Your task to perform on an android device: toggle javascript in the chrome app Image 0: 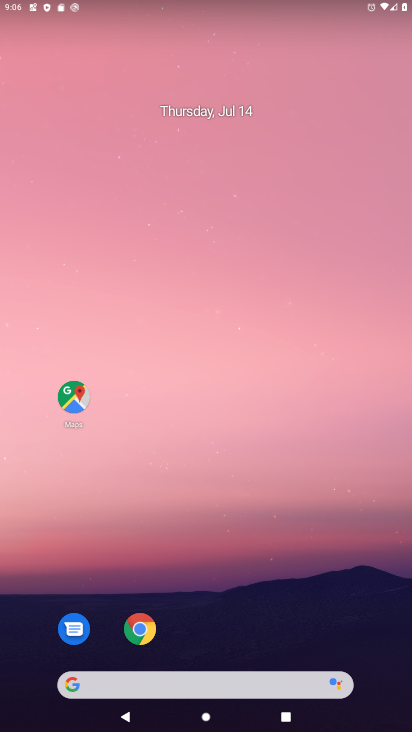
Step 0: click (144, 627)
Your task to perform on an android device: toggle javascript in the chrome app Image 1: 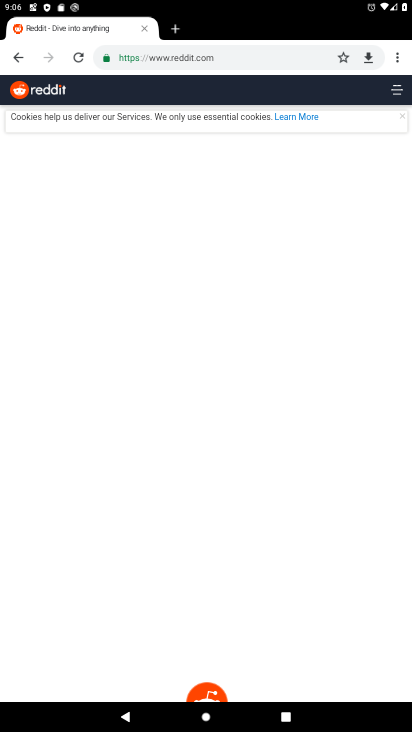
Step 1: click (401, 58)
Your task to perform on an android device: toggle javascript in the chrome app Image 2: 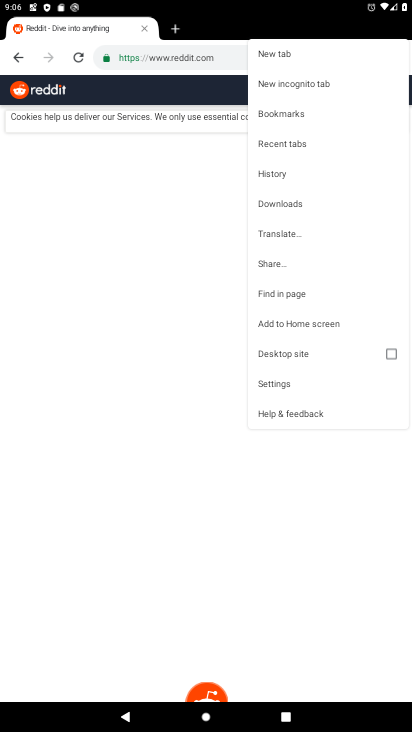
Step 2: click (274, 384)
Your task to perform on an android device: toggle javascript in the chrome app Image 3: 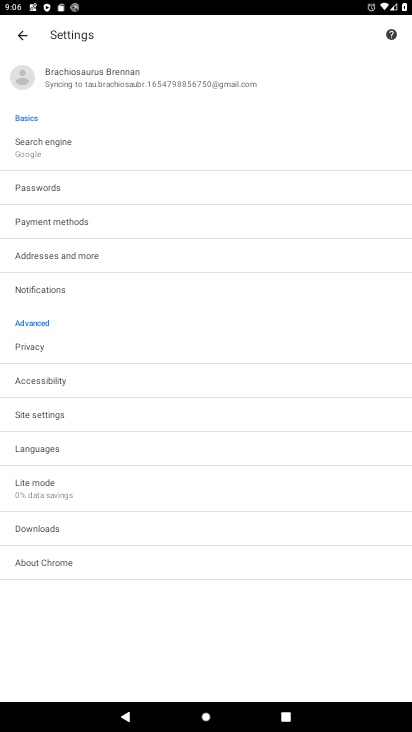
Step 3: click (59, 407)
Your task to perform on an android device: toggle javascript in the chrome app Image 4: 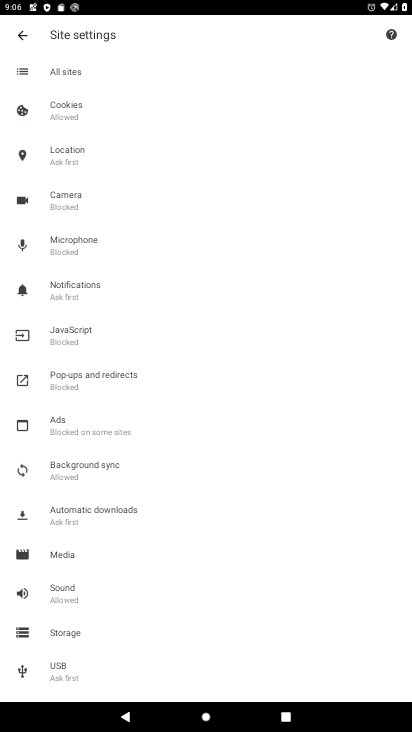
Step 4: click (88, 338)
Your task to perform on an android device: toggle javascript in the chrome app Image 5: 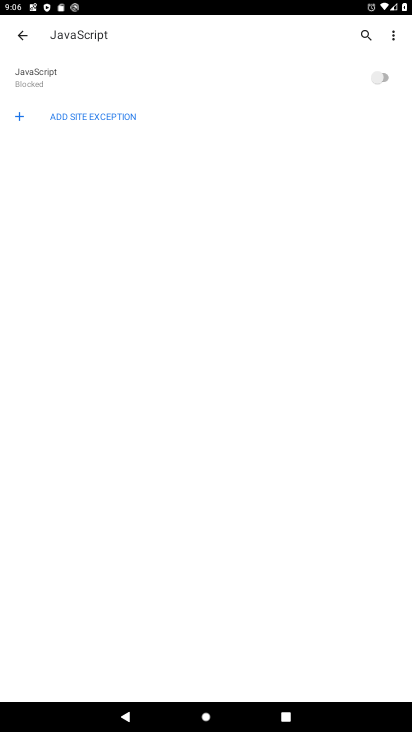
Step 5: click (382, 70)
Your task to perform on an android device: toggle javascript in the chrome app Image 6: 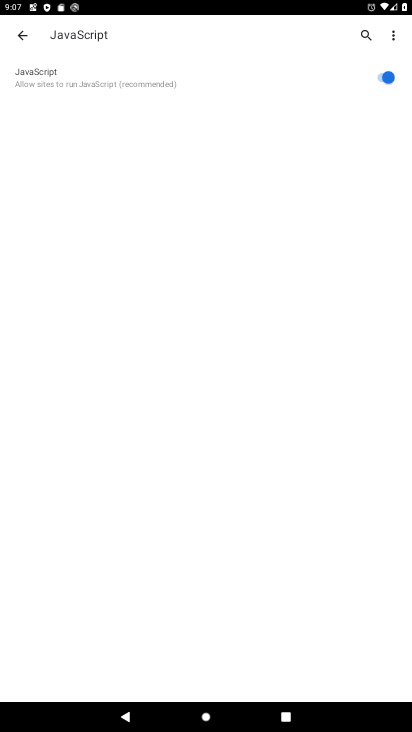
Step 6: task complete